Your task to perform on an android device: Go to Maps Image 0: 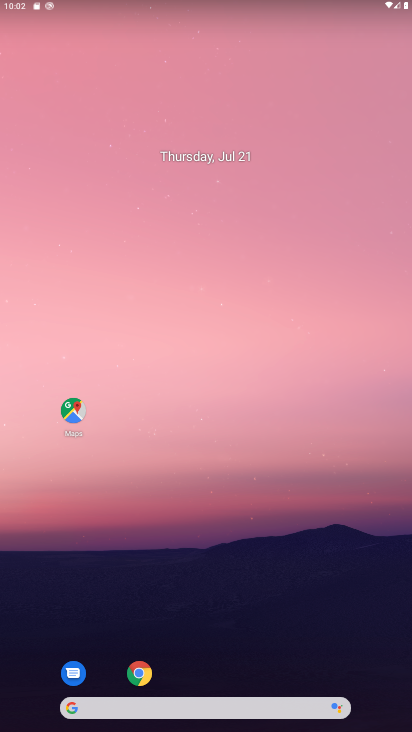
Step 0: click (71, 412)
Your task to perform on an android device: Go to Maps Image 1: 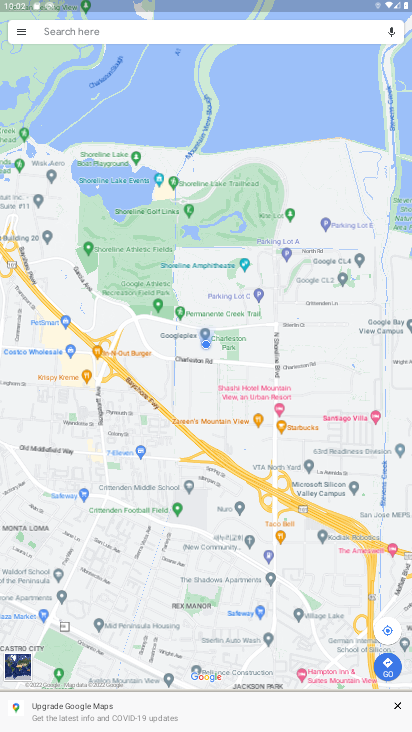
Step 1: task complete